Your task to perform on an android device: turn off notifications in google photos Image 0: 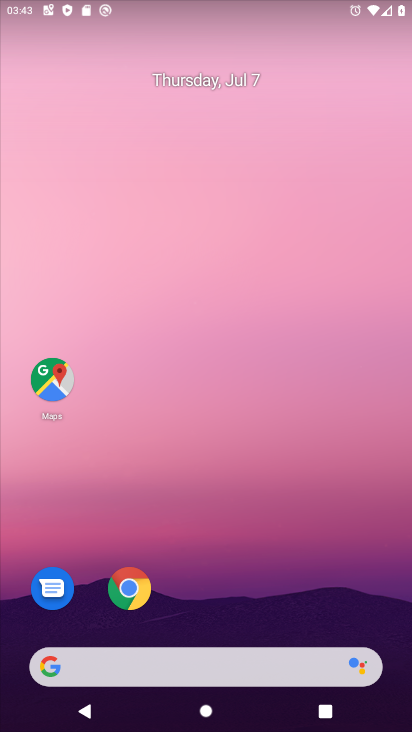
Step 0: drag from (208, 630) to (204, 282)
Your task to perform on an android device: turn off notifications in google photos Image 1: 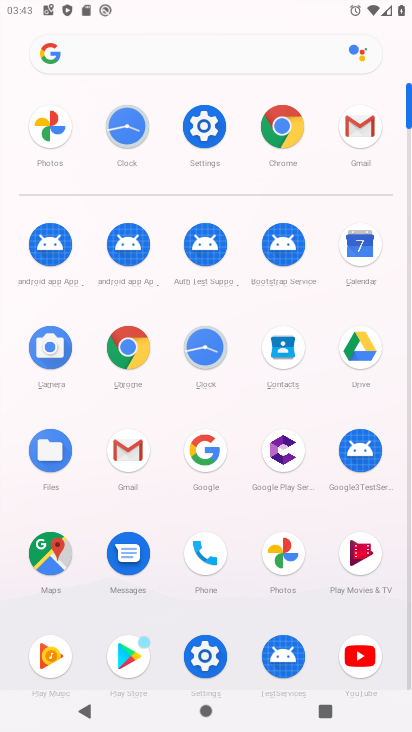
Step 1: click (275, 554)
Your task to perform on an android device: turn off notifications in google photos Image 2: 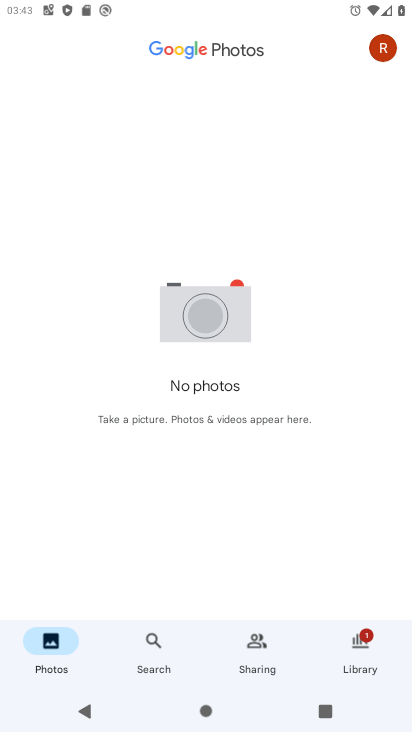
Step 2: click (388, 44)
Your task to perform on an android device: turn off notifications in google photos Image 3: 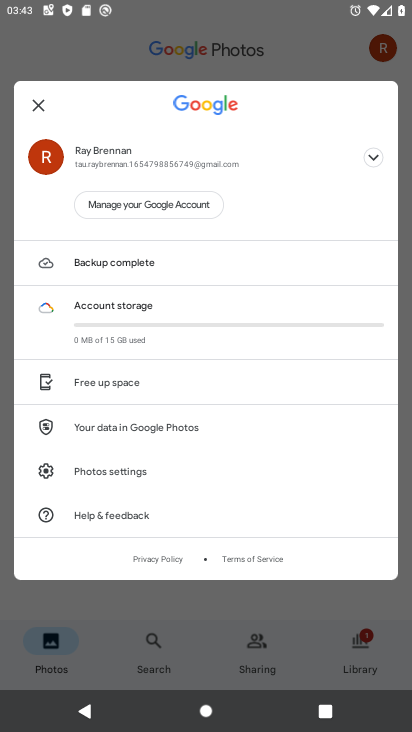
Step 3: click (125, 470)
Your task to perform on an android device: turn off notifications in google photos Image 4: 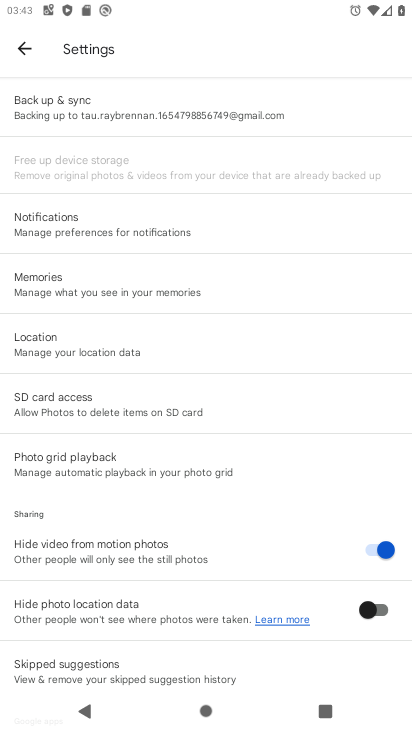
Step 4: click (47, 231)
Your task to perform on an android device: turn off notifications in google photos Image 5: 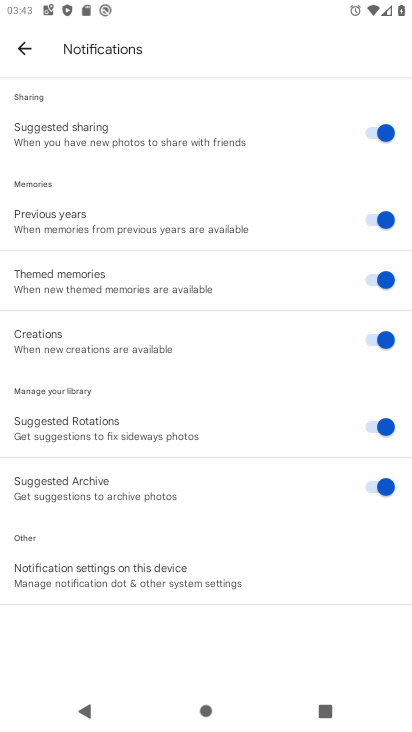
Step 5: click (132, 572)
Your task to perform on an android device: turn off notifications in google photos Image 6: 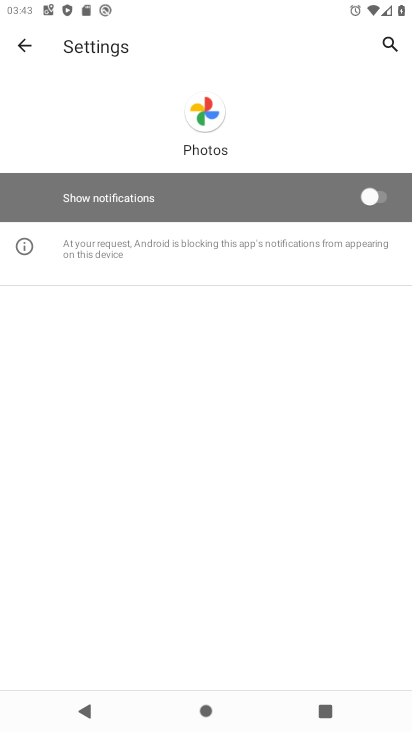
Step 6: task complete